Your task to perform on an android device: change notification settings in the gmail app Image 0: 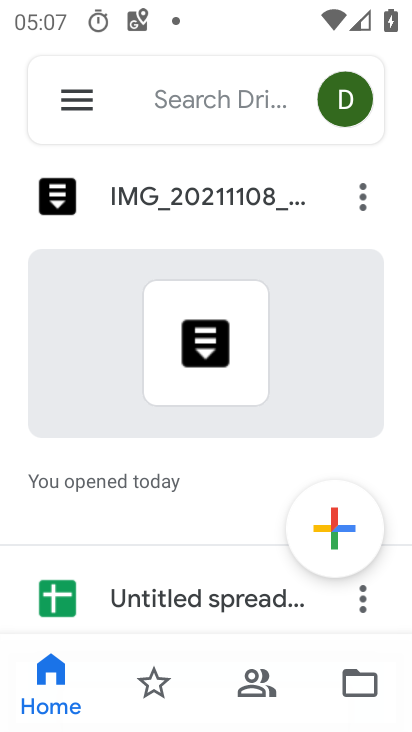
Step 0: press home button
Your task to perform on an android device: change notification settings in the gmail app Image 1: 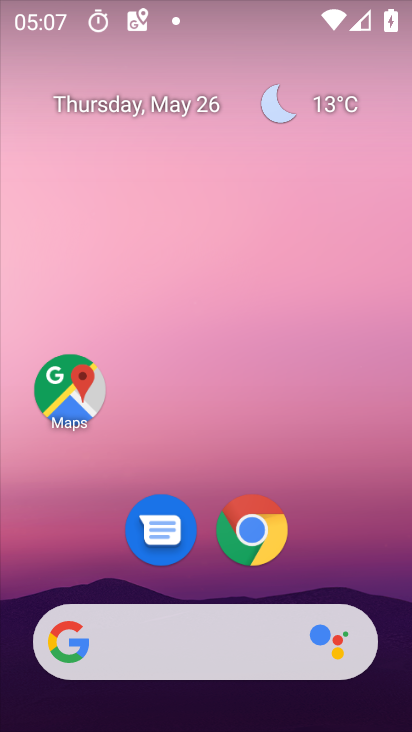
Step 1: drag from (262, 606) to (410, 408)
Your task to perform on an android device: change notification settings in the gmail app Image 2: 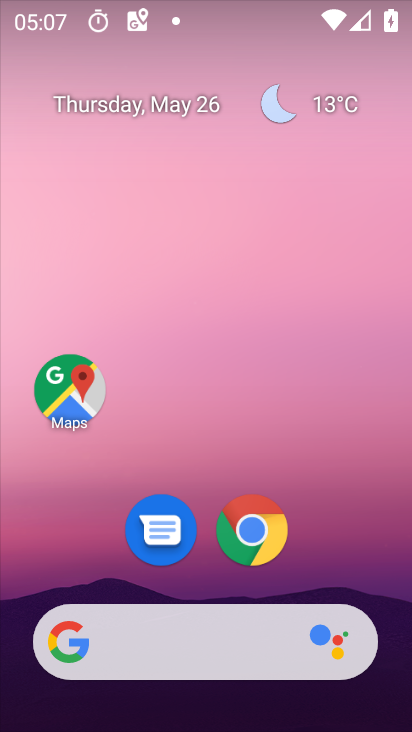
Step 2: click (355, 460)
Your task to perform on an android device: change notification settings in the gmail app Image 3: 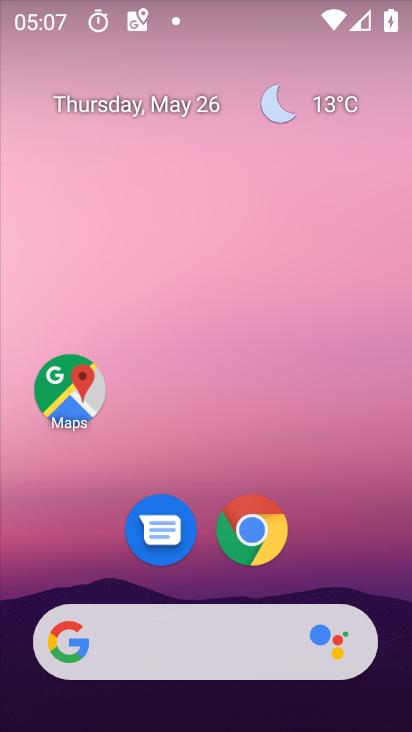
Step 3: drag from (235, 659) to (264, 3)
Your task to perform on an android device: change notification settings in the gmail app Image 4: 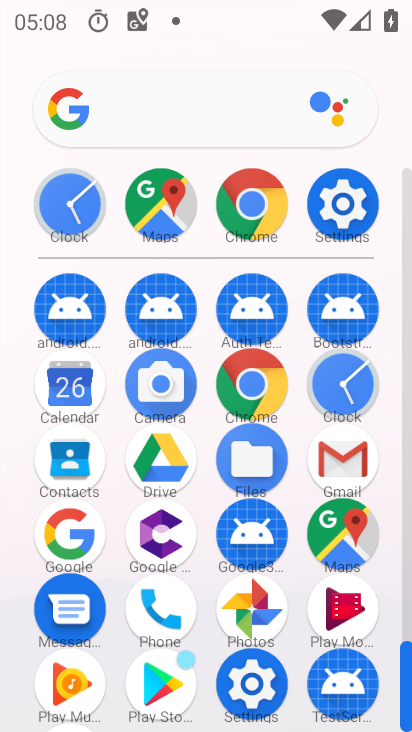
Step 4: click (335, 464)
Your task to perform on an android device: change notification settings in the gmail app Image 5: 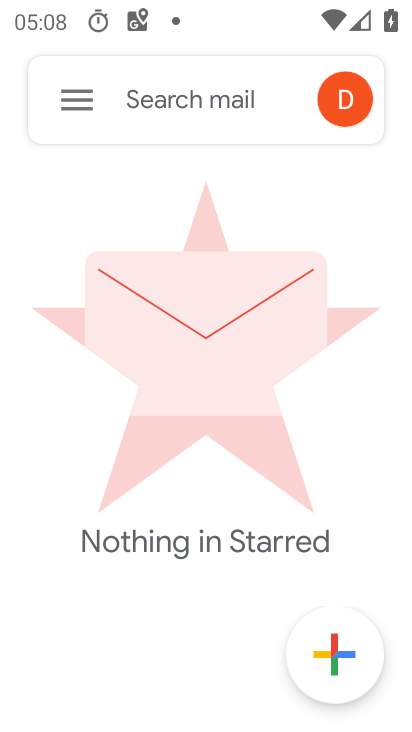
Step 5: click (65, 90)
Your task to perform on an android device: change notification settings in the gmail app Image 6: 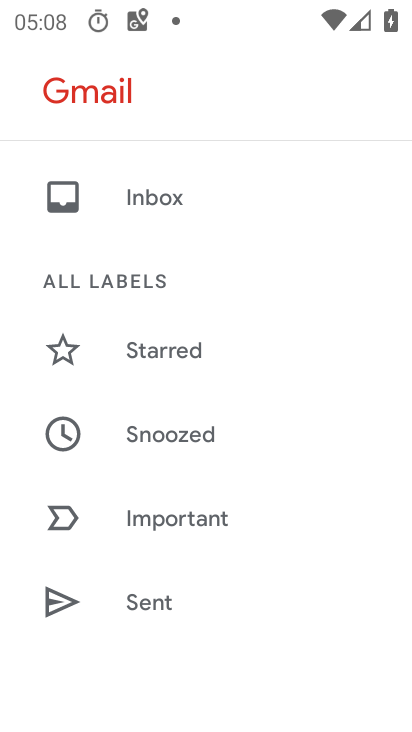
Step 6: drag from (144, 584) to (206, 58)
Your task to perform on an android device: change notification settings in the gmail app Image 7: 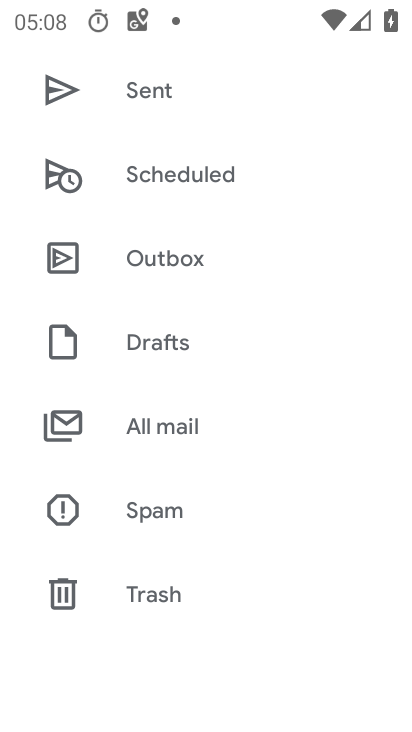
Step 7: drag from (194, 624) to (213, 192)
Your task to perform on an android device: change notification settings in the gmail app Image 8: 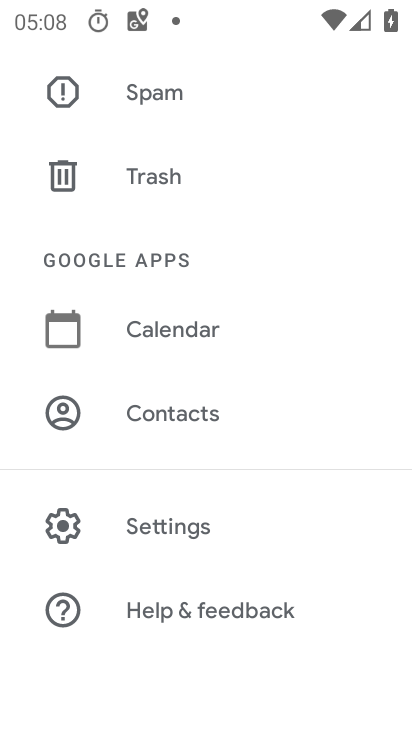
Step 8: click (153, 535)
Your task to perform on an android device: change notification settings in the gmail app Image 9: 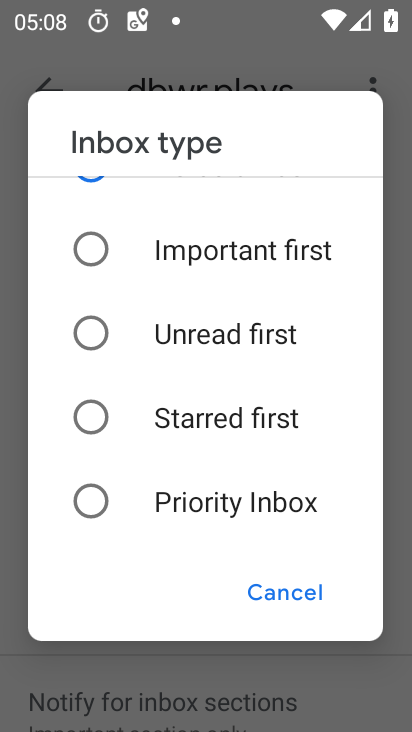
Step 9: click (289, 594)
Your task to perform on an android device: change notification settings in the gmail app Image 10: 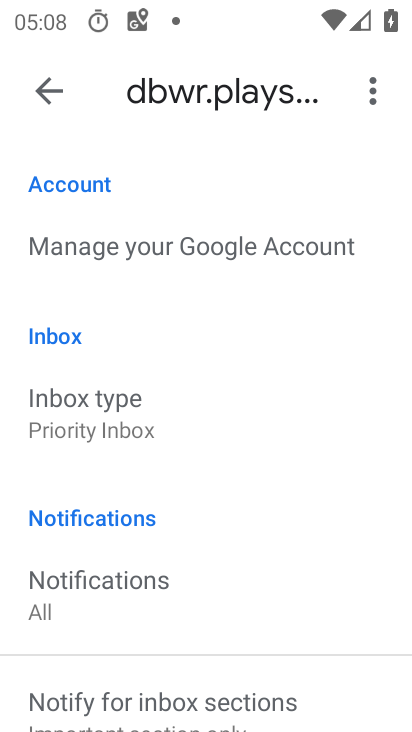
Step 10: drag from (210, 669) to (346, 45)
Your task to perform on an android device: change notification settings in the gmail app Image 11: 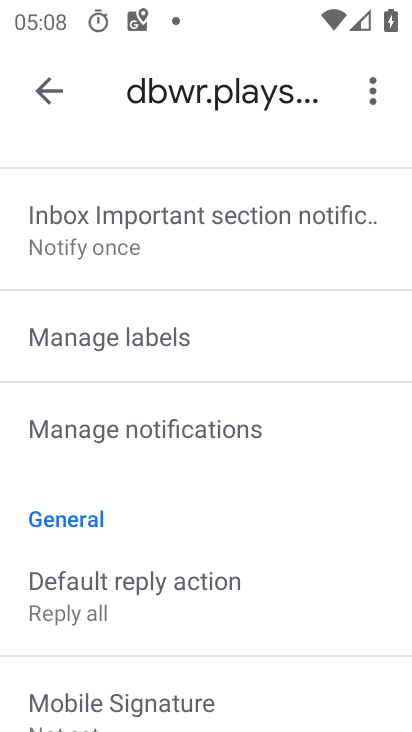
Step 11: click (162, 424)
Your task to perform on an android device: change notification settings in the gmail app Image 12: 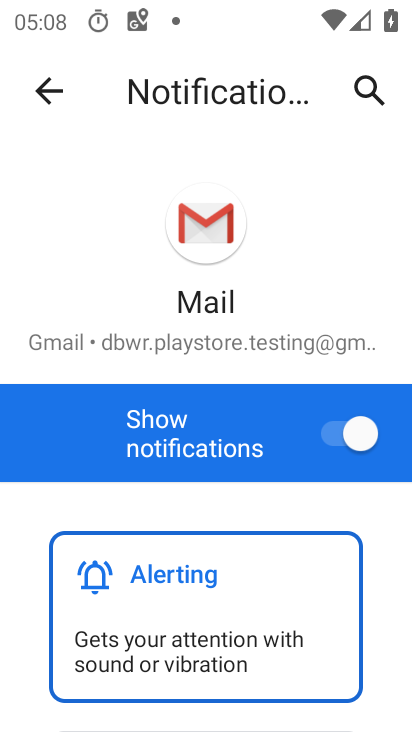
Step 12: click (347, 441)
Your task to perform on an android device: change notification settings in the gmail app Image 13: 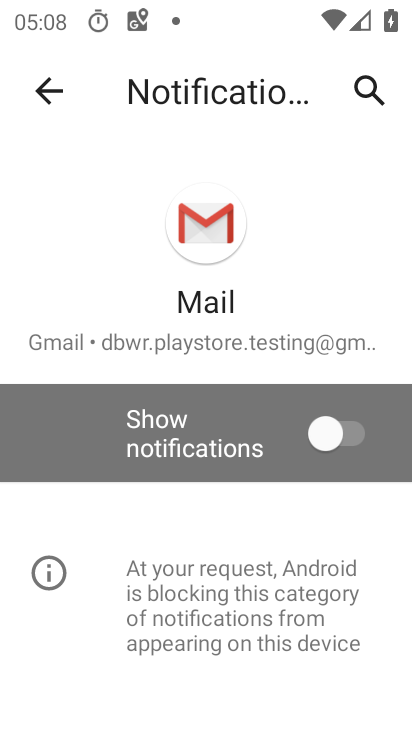
Step 13: task complete